Your task to perform on an android device: delete browsing data in the chrome app Image 0: 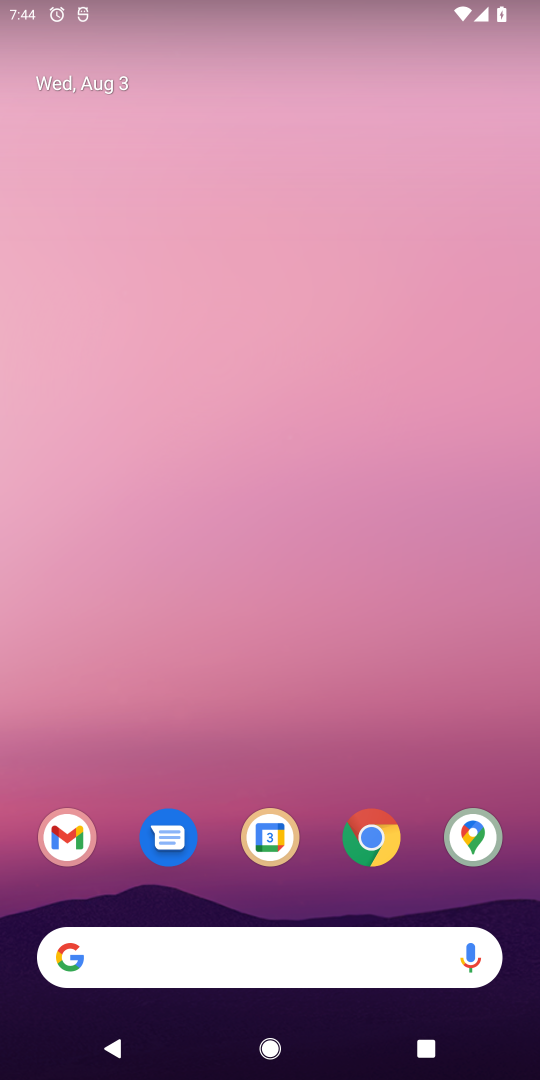
Step 0: press home button
Your task to perform on an android device: delete browsing data in the chrome app Image 1: 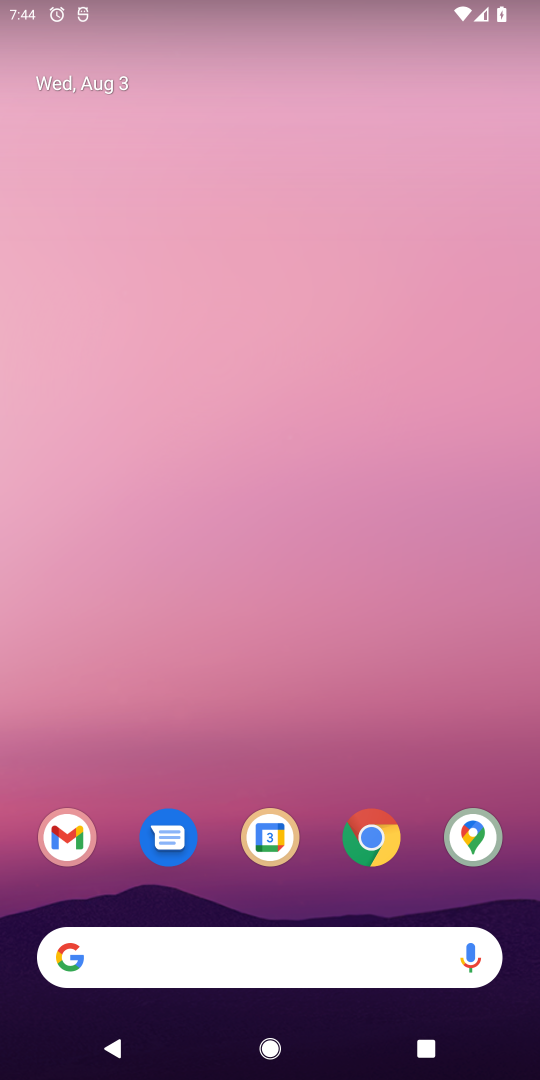
Step 1: click (402, 829)
Your task to perform on an android device: delete browsing data in the chrome app Image 2: 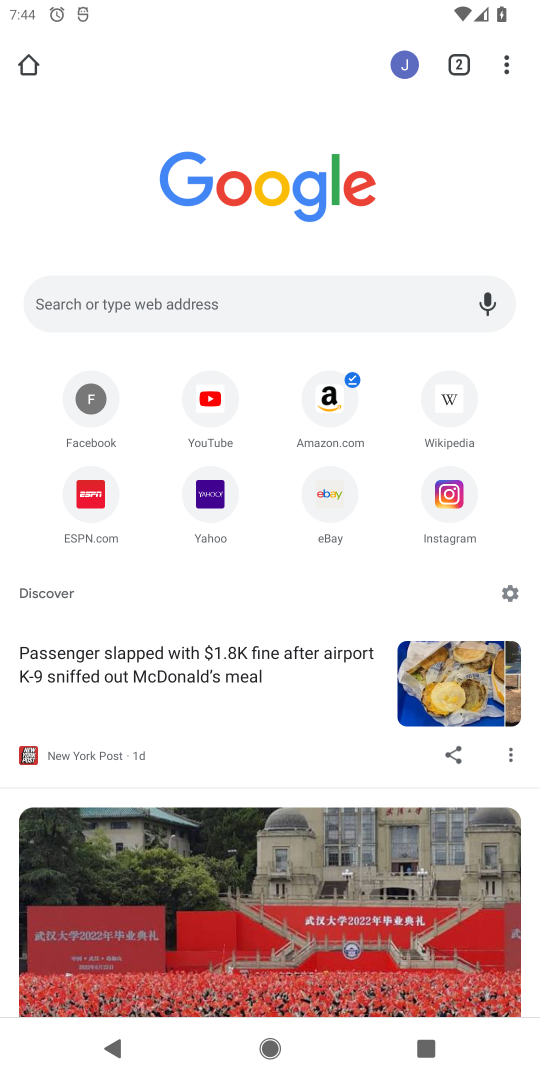
Step 2: drag from (499, 60) to (305, 628)
Your task to perform on an android device: delete browsing data in the chrome app Image 3: 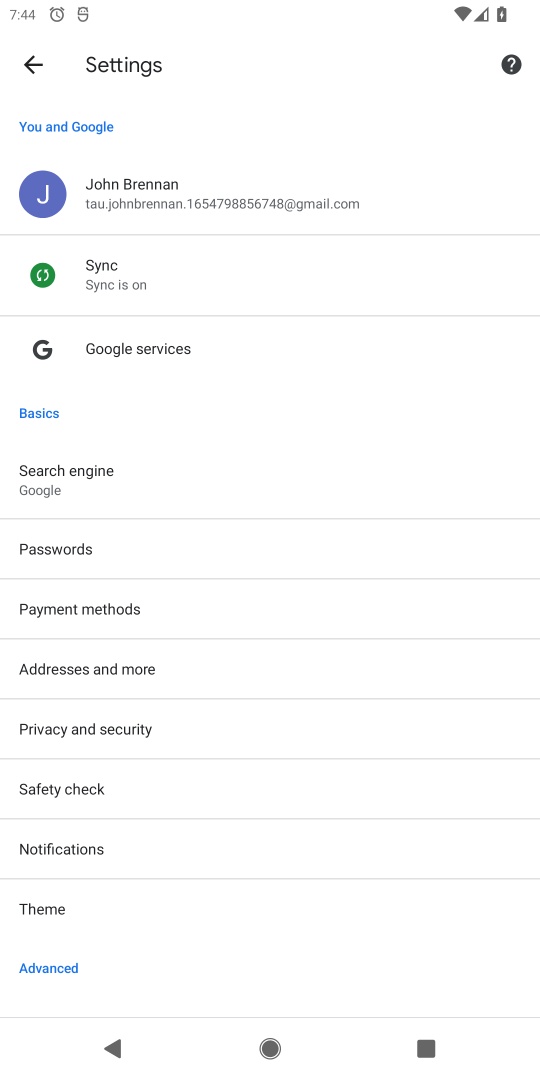
Step 3: drag from (302, 921) to (386, 397)
Your task to perform on an android device: delete browsing data in the chrome app Image 4: 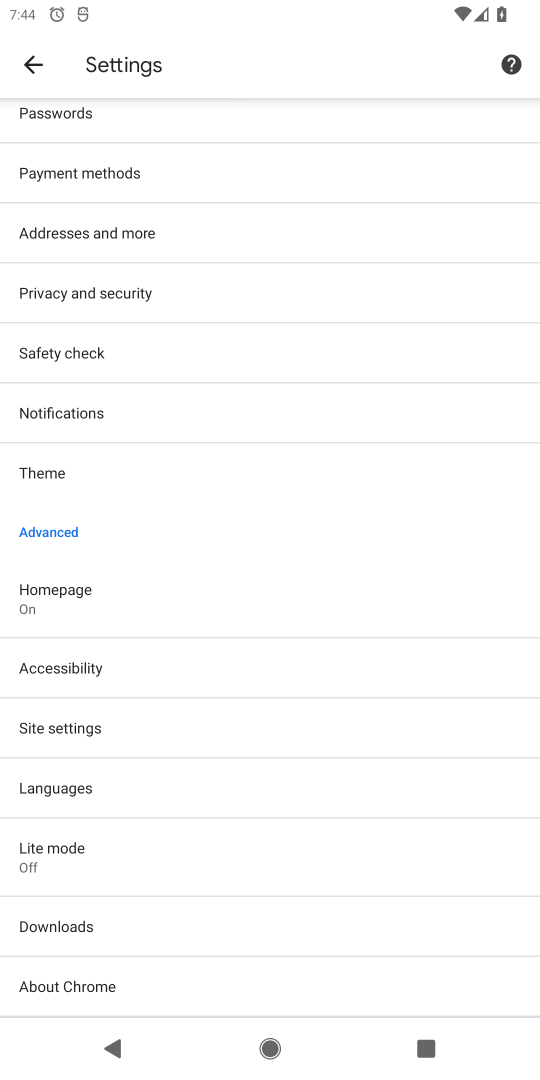
Step 4: click (74, 295)
Your task to perform on an android device: delete browsing data in the chrome app Image 5: 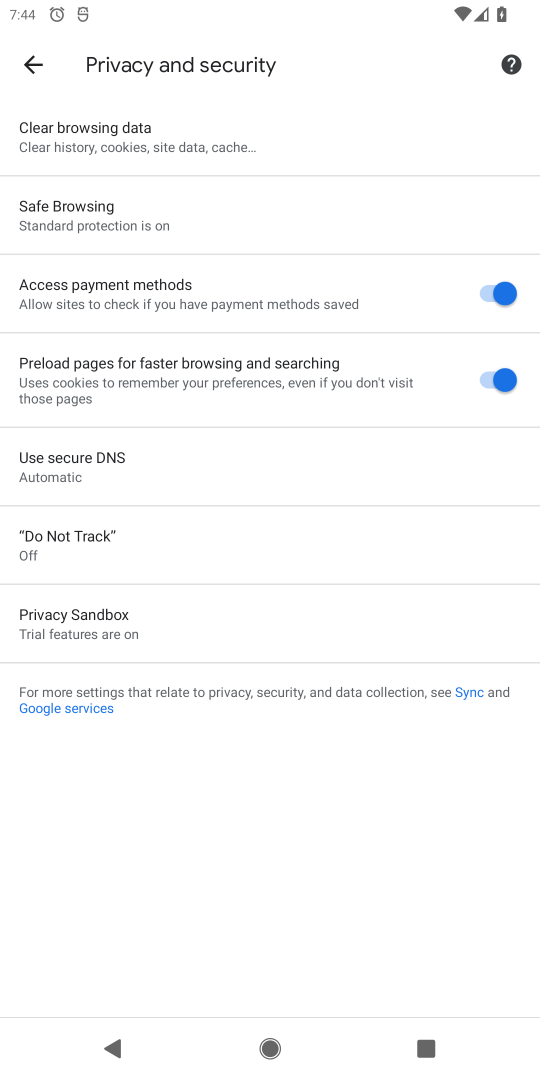
Step 5: click (102, 140)
Your task to perform on an android device: delete browsing data in the chrome app Image 6: 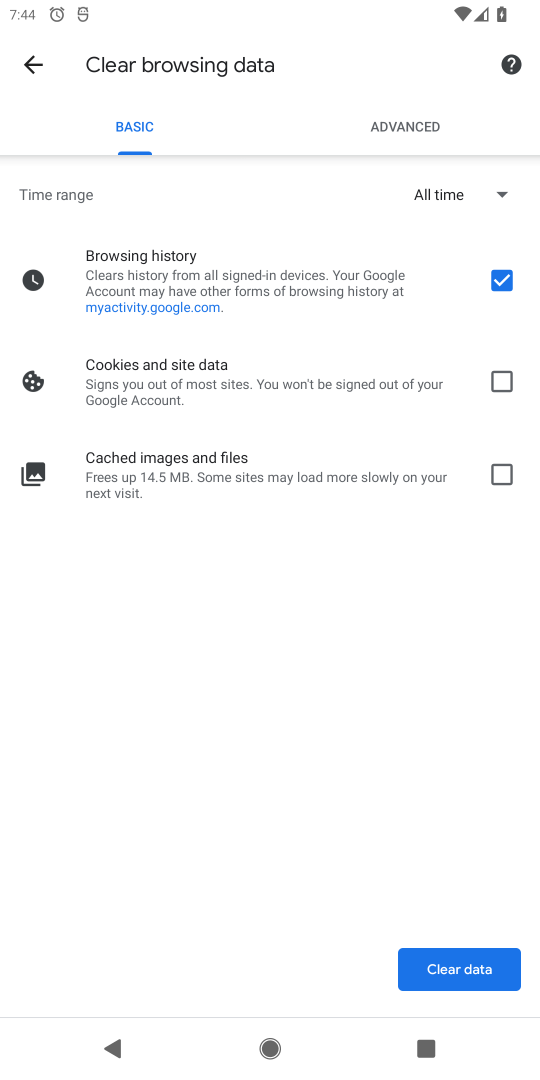
Step 6: click (514, 379)
Your task to perform on an android device: delete browsing data in the chrome app Image 7: 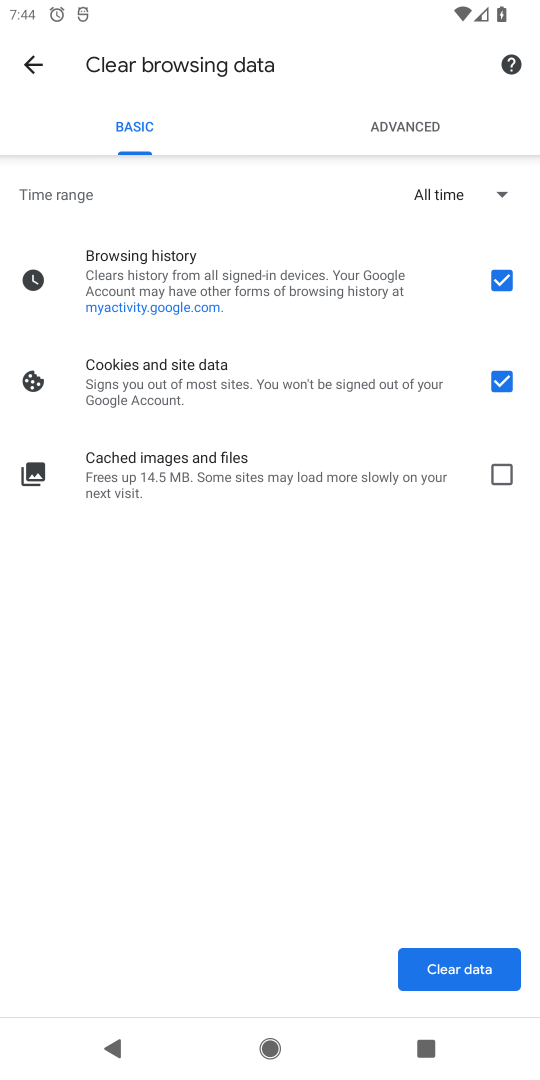
Step 7: click (511, 466)
Your task to perform on an android device: delete browsing data in the chrome app Image 8: 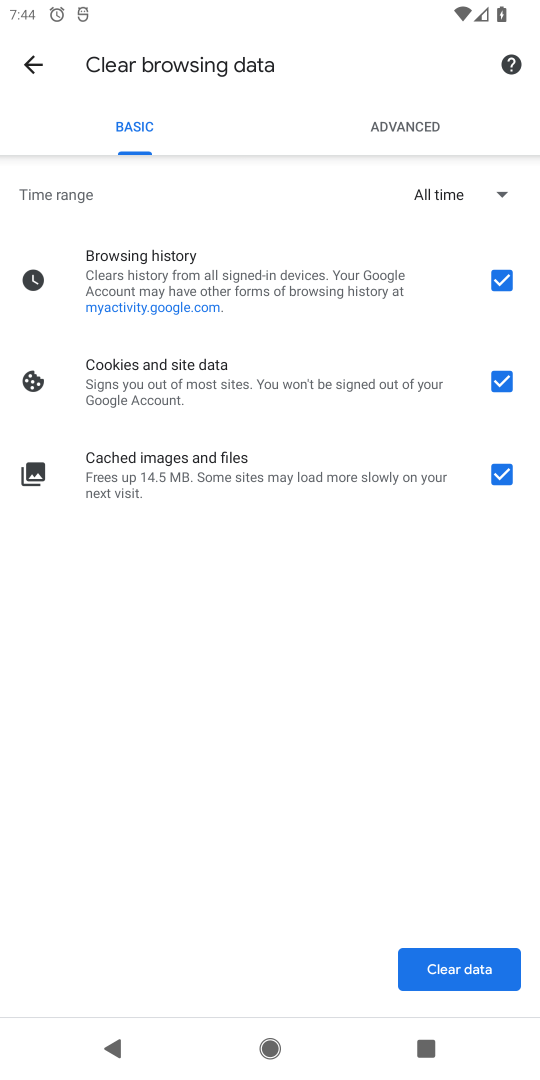
Step 8: click (451, 960)
Your task to perform on an android device: delete browsing data in the chrome app Image 9: 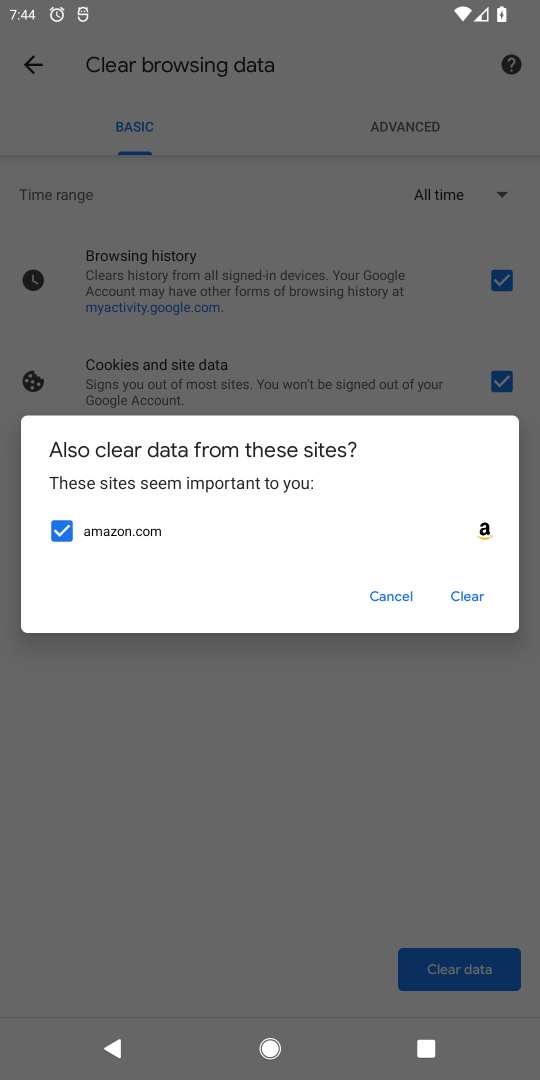
Step 9: click (485, 590)
Your task to perform on an android device: delete browsing data in the chrome app Image 10: 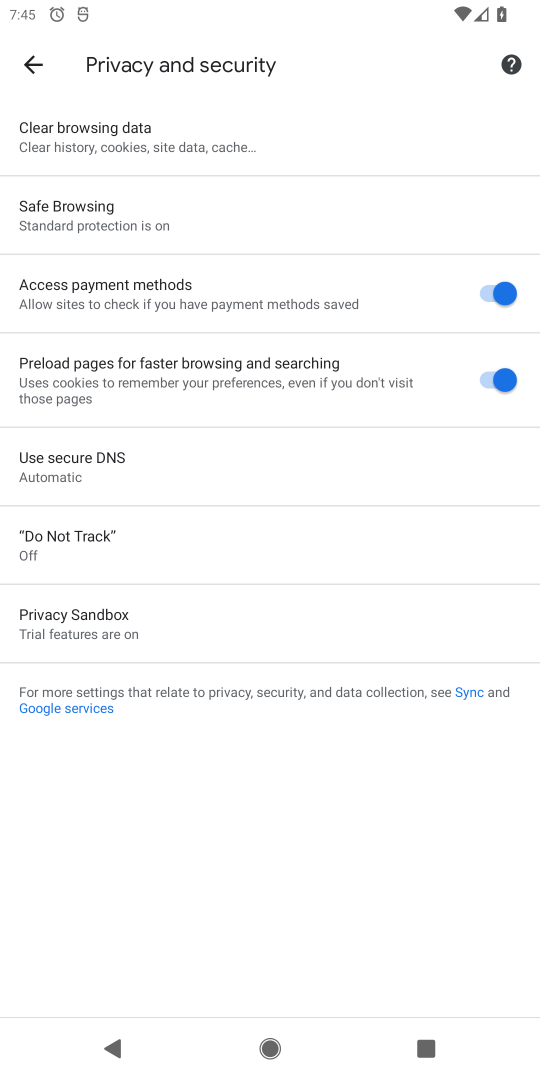
Step 10: task complete